Your task to perform on an android device: Open Android settings Image 0: 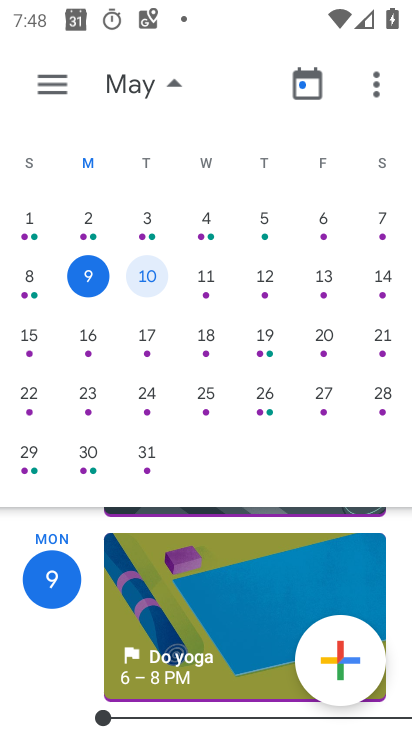
Step 0: press home button
Your task to perform on an android device: Open Android settings Image 1: 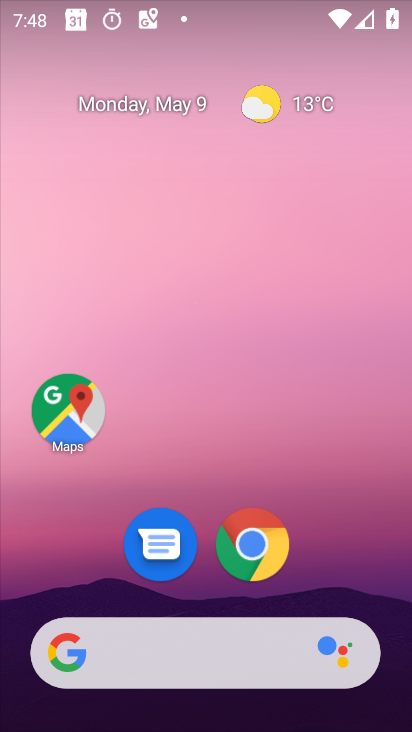
Step 1: drag from (376, 508) to (371, 1)
Your task to perform on an android device: Open Android settings Image 2: 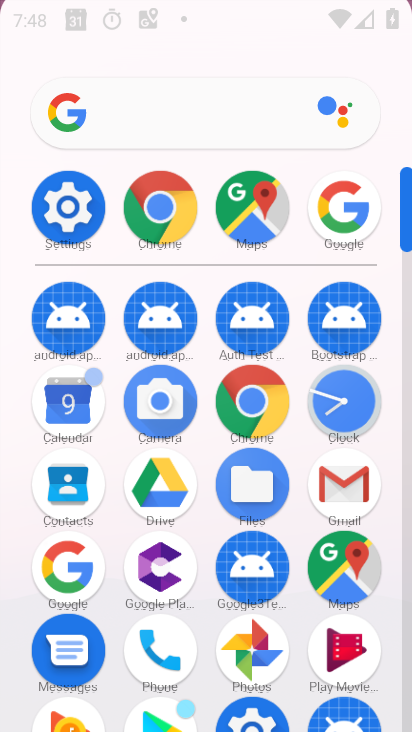
Step 2: click (43, 257)
Your task to perform on an android device: Open Android settings Image 3: 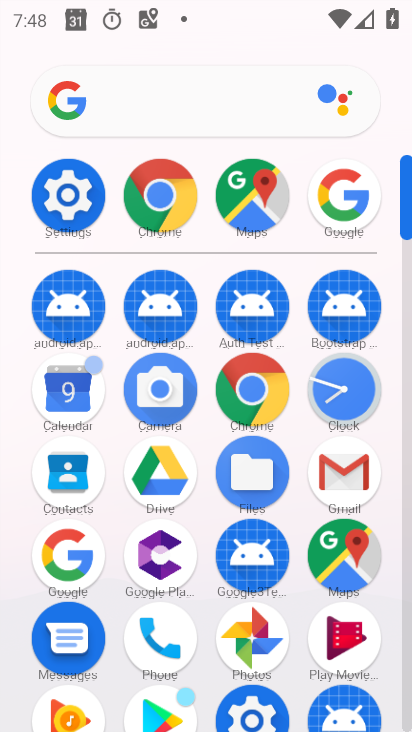
Step 3: click (69, 215)
Your task to perform on an android device: Open Android settings Image 4: 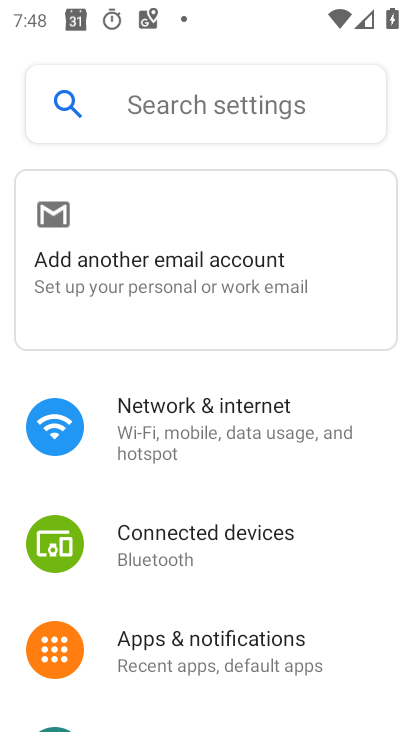
Step 4: drag from (300, 597) to (300, 28)
Your task to perform on an android device: Open Android settings Image 5: 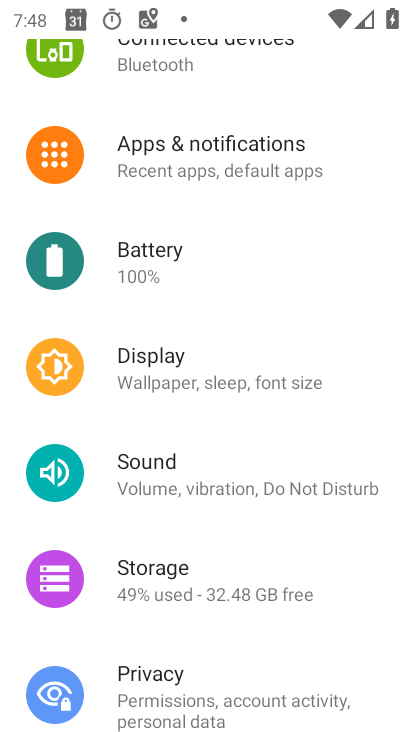
Step 5: drag from (234, 607) to (202, 42)
Your task to perform on an android device: Open Android settings Image 6: 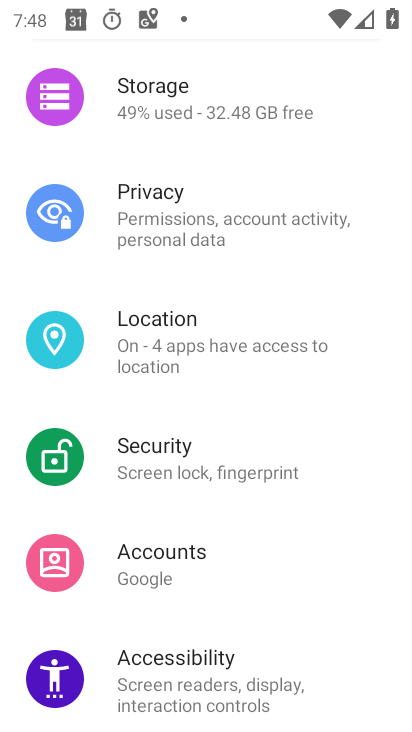
Step 6: drag from (226, 621) to (201, 97)
Your task to perform on an android device: Open Android settings Image 7: 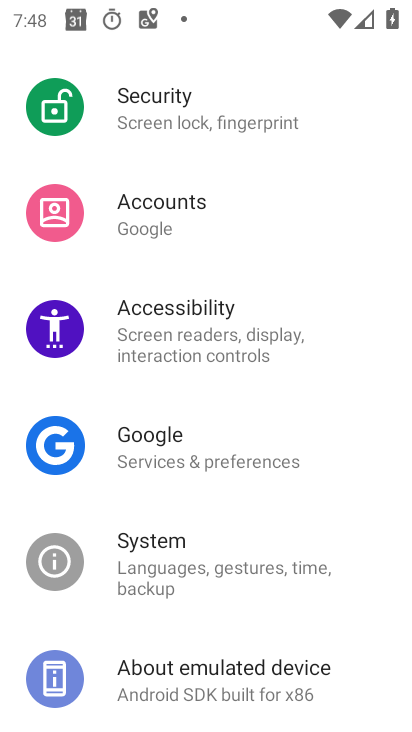
Step 7: drag from (224, 620) to (178, 105)
Your task to perform on an android device: Open Android settings Image 8: 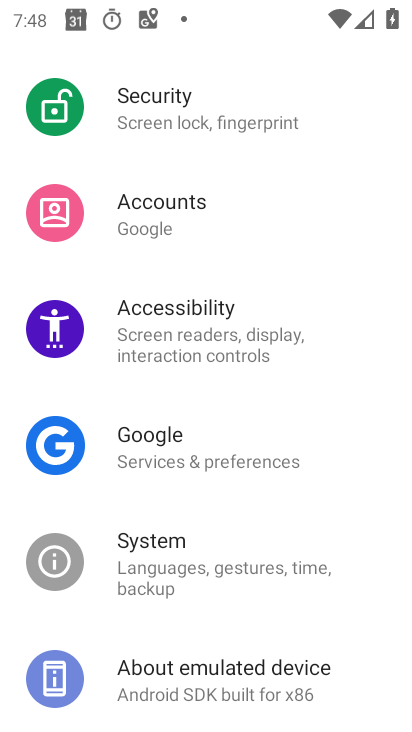
Step 8: click (187, 686)
Your task to perform on an android device: Open Android settings Image 9: 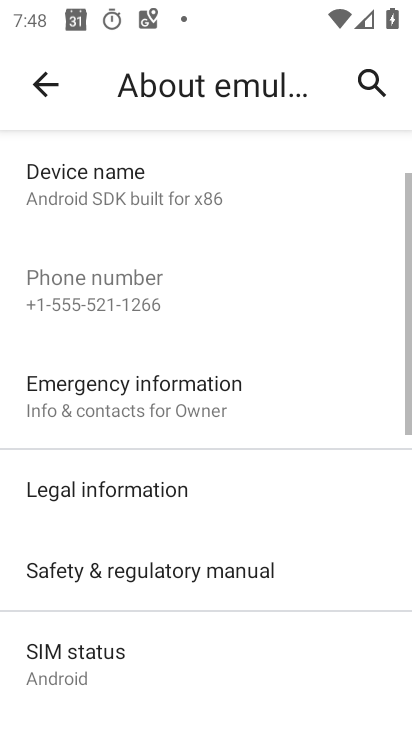
Step 9: task complete